Your task to perform on an android device: open app "Expedia: Hotels, Flights & Car" (install if not already installed), go to login, and select forgot password Image 0: 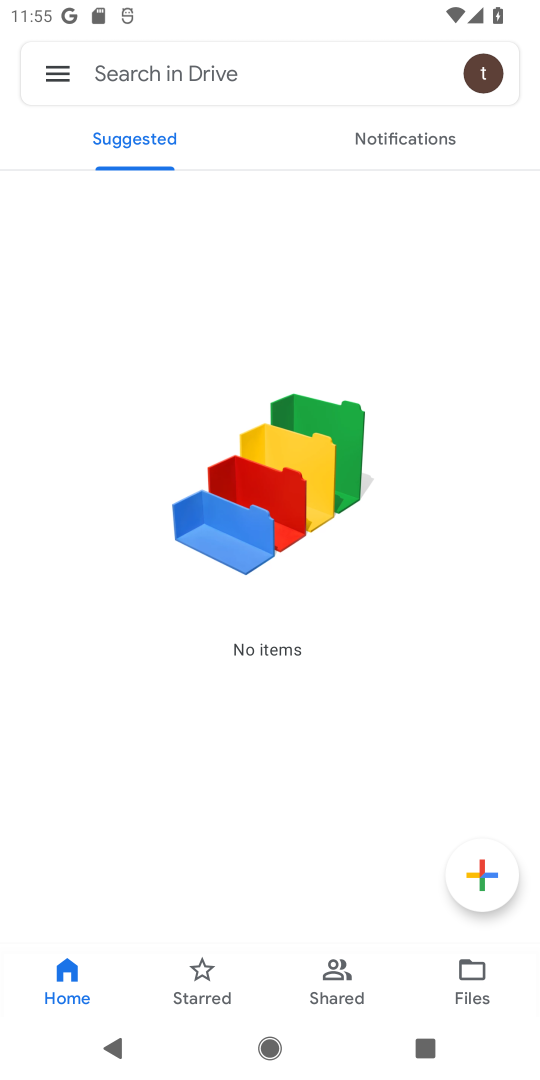
Step 0: press home button
Your task to perform on an android device: open app "Expedia: Hotels, Flights & Car" (install if not already installed), go to login, and select forgot password Image 1: 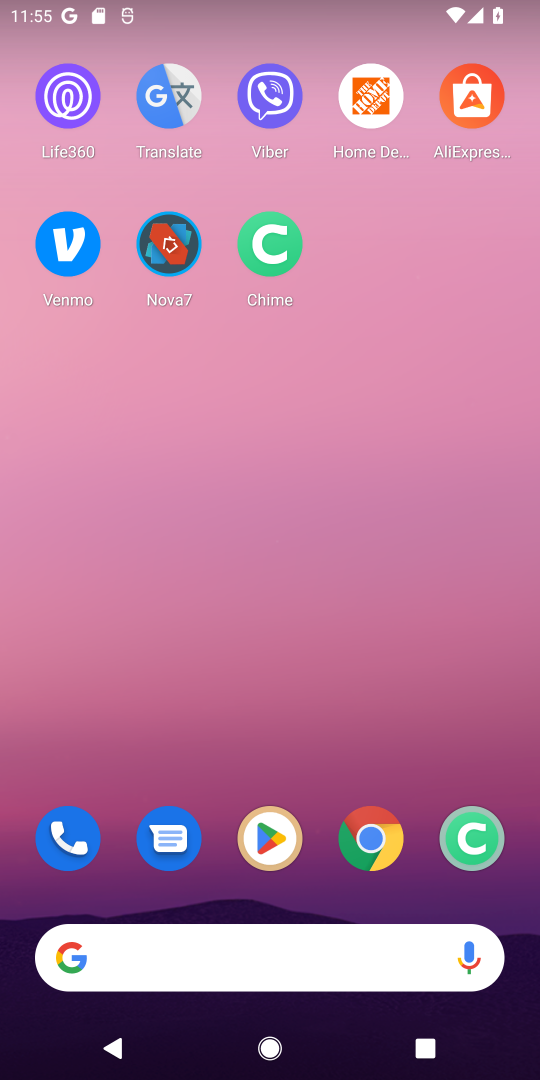
Step 1: click (289, 830)
Your task to perform on an android device: open app "Expedia: Hotels, Flights & Car" (install if not already installed), go to login, and select forgot password Image 2: 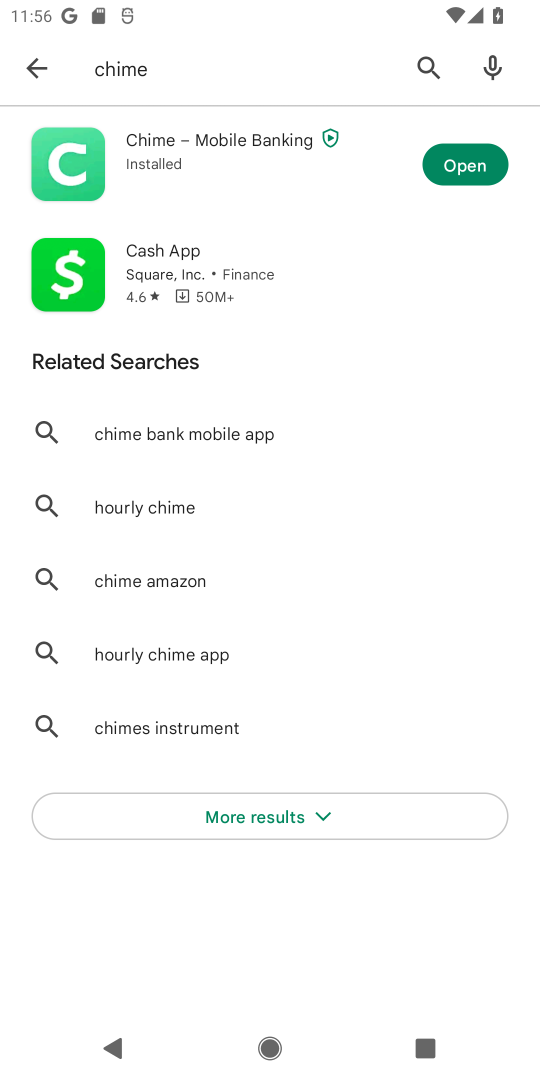
Step 2: click (414, 57)
Your task to perform on an android device: open app "Expedia: Hotels, Flights & Car" (install if not already installed), go to login, and select forgot password Image 3: 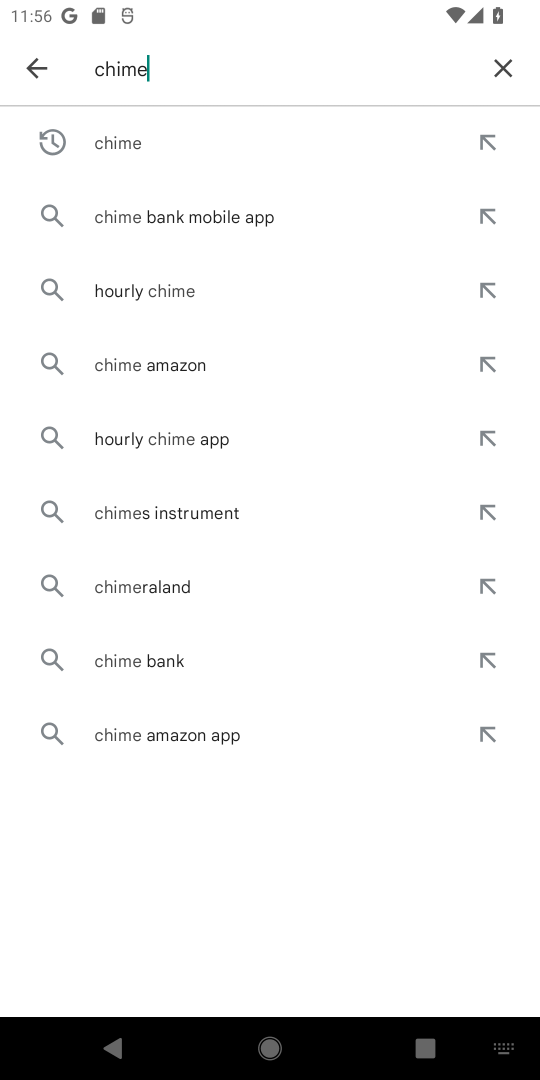
Step 3: click (508, 76)
Your task to perform on an android device: open app "Expedia: Hotels, Flights & Car" (install if not already installed), go to login, and select forgot password Image 4: 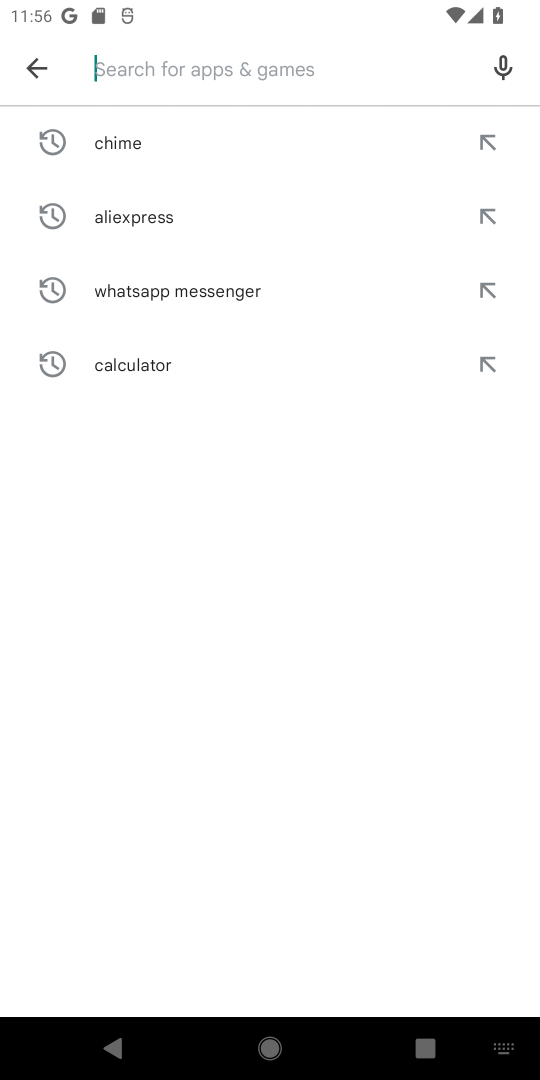
Step 4: type "Expedia: Hotels, Flights & Car"
Your task to perform on an android device: open app "Expedia: Hotels, Flights & Car" (install if not already installed), go to login, and select forgot password Image 5: 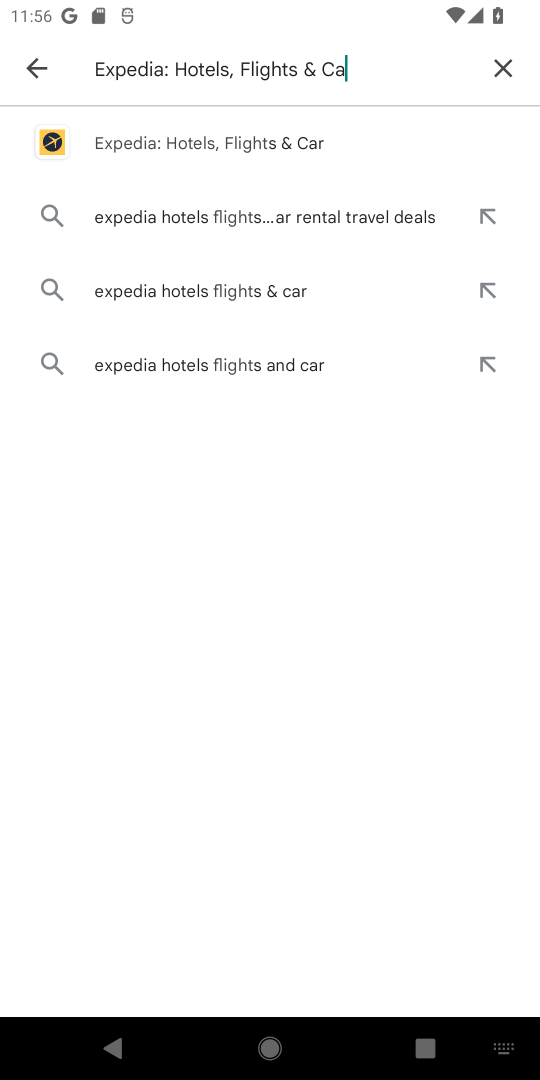
Step 5: type ""
Your task to perform on an android device: open app "Expedia: Hotels, Flights & Car" (install if not already installed), go to login, and select forgot password Image 6: 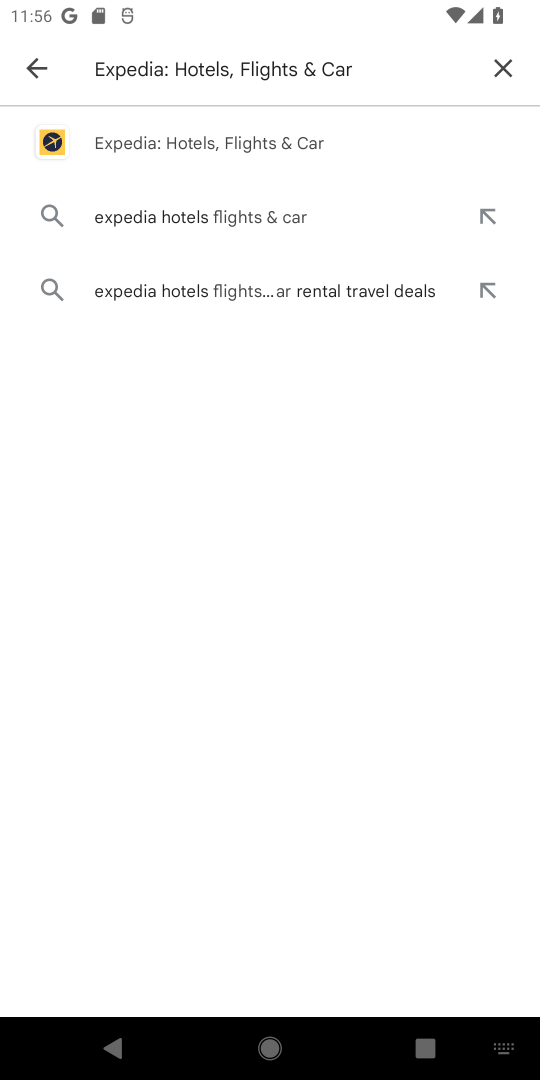
Step 6: click (167, 148)
Your task to perform on an android device: open app "Expedia: Hotels, Flights & Car" (install if not already installed), go to login, and select forgot password Image 7: 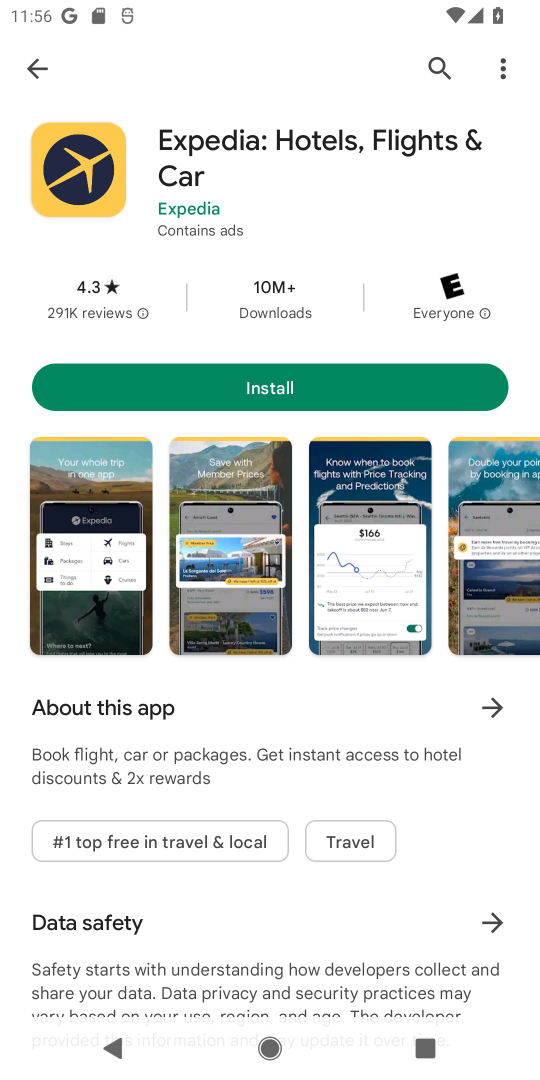
Step 7: click (386, 387)
Your task to perform on an android device: open app "Expedia: Hotels, Flights & Car" (install if not already installed), go to login, and select forgot password Image 8: 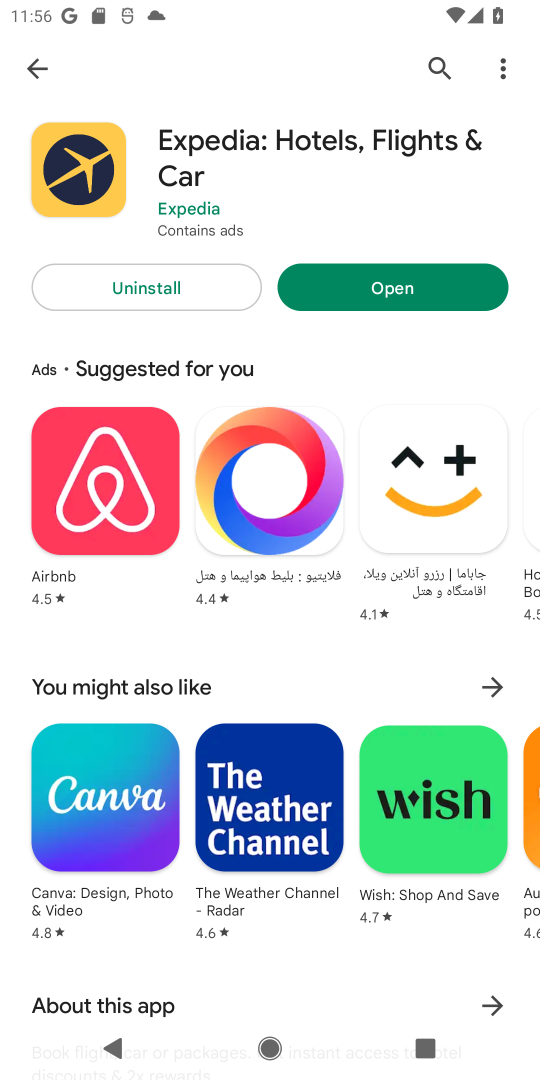
Step 8: click (362, 301)
Your task to perform on an android device: open app "Expedia: Hotels, Flights & Car" (install if not already installed), go to login, and select forgot password Image 9: 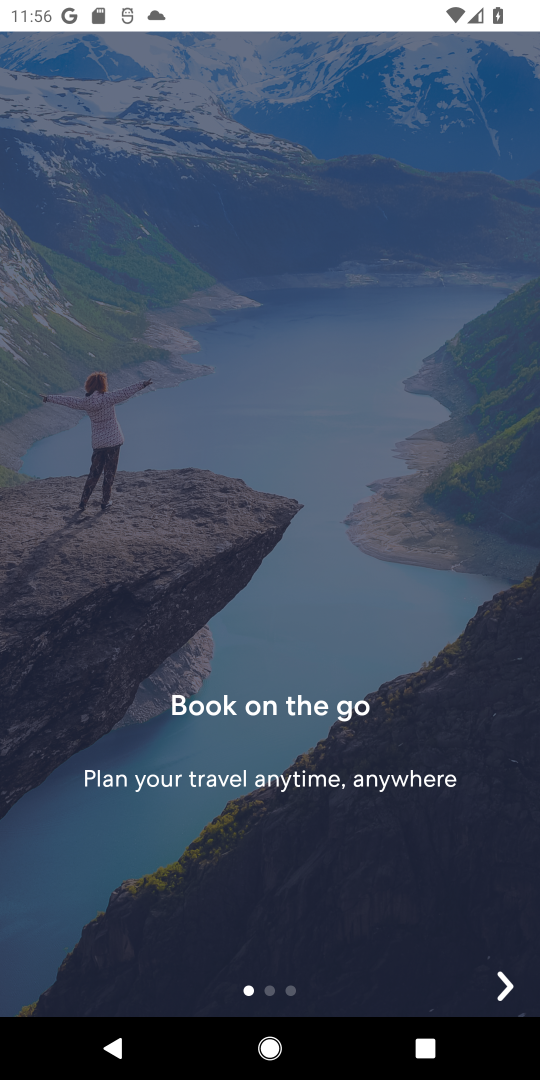
Step 9: task complete